Your task to perform on an android device: Open the stopwatch Image 0: 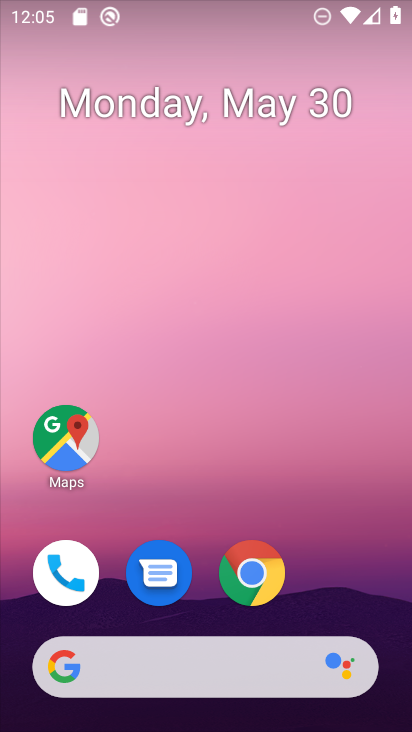
Step 0: drag from (349, 598) to (323, 189)
Your task to perform on an android device: Open the stopwatch Image 1: 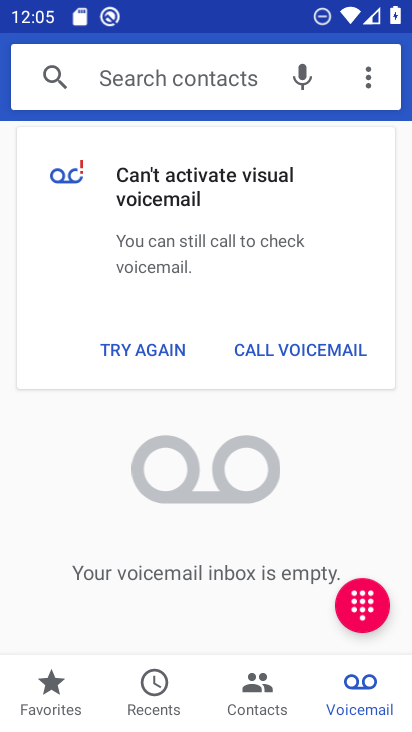
Step 1: press home button
Your task to perform on an android device: Open the stopwatch Image 2: 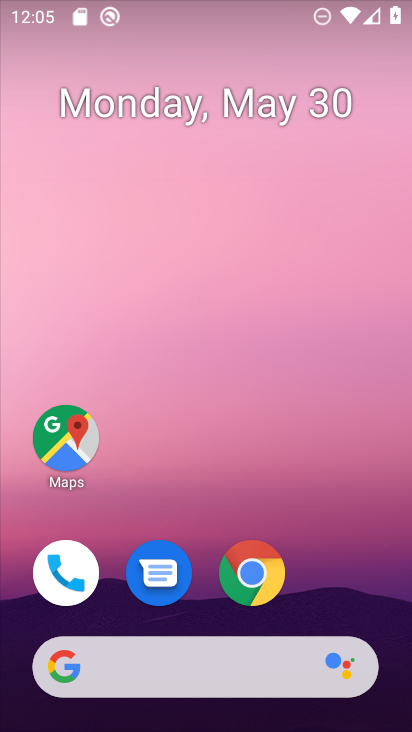
Step 2: drag from (298, 622) to (288, 128)
Your task to perform on an android device: Open the stopwatch Image 3: 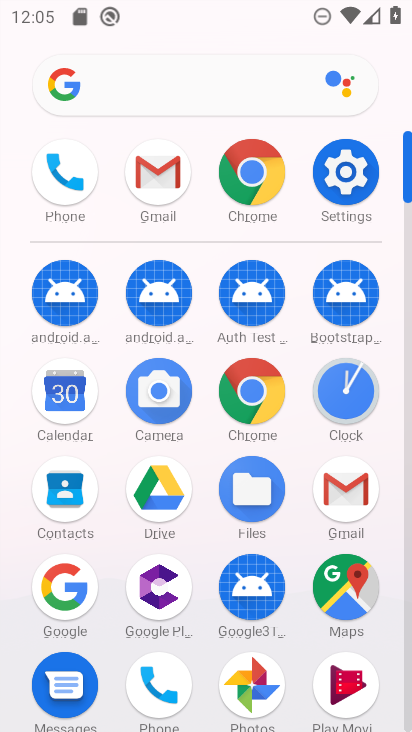
Step 3: click (347, 402)
Your task to perform on an android device: Open the stopwatch Image 4: 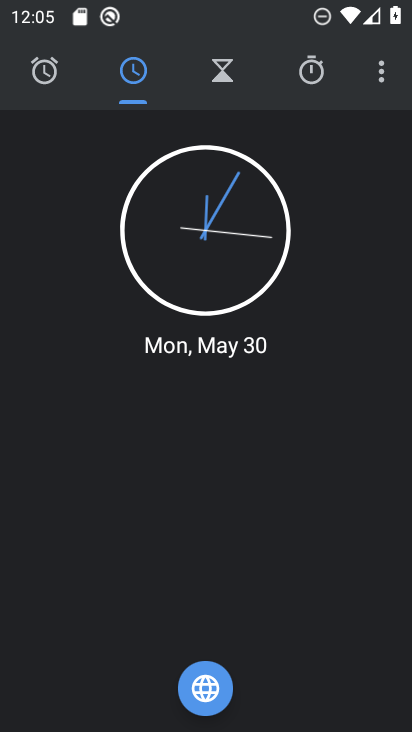
Step 4: click (310, 79)
Your task to perform on an android device: Open the stopwatch Image 5: 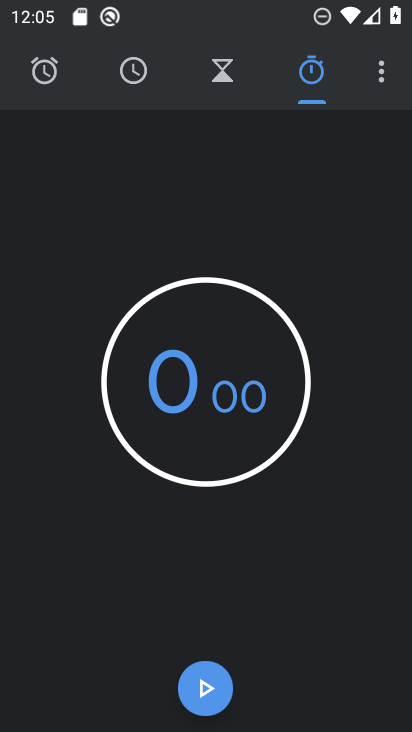
Step 5: task complete